Your task to perform on an android device: Open CNN.com Image 0: 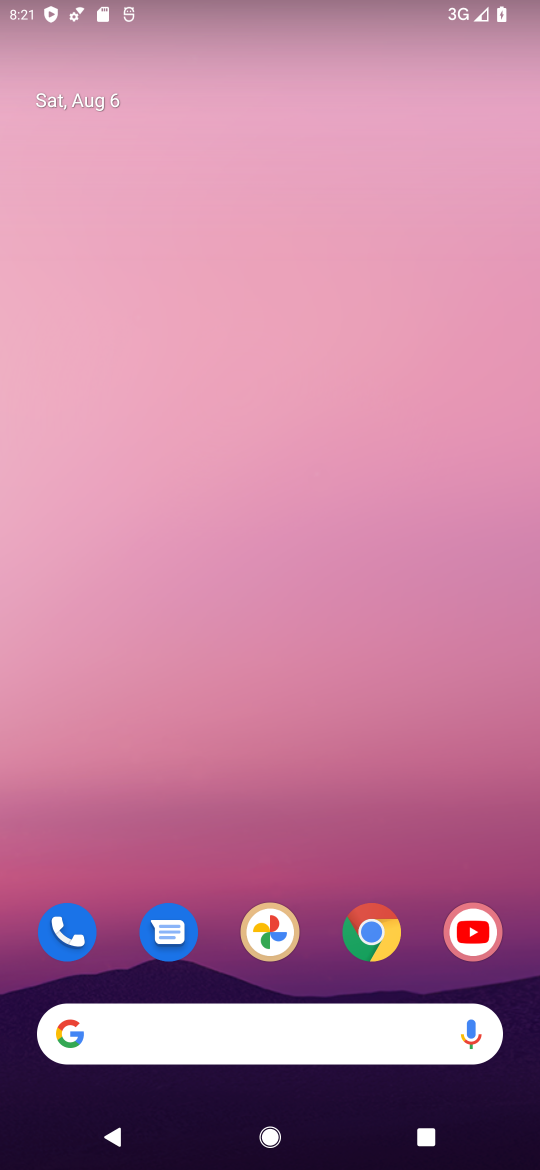
Step 0: click (371, 933)
Your task to perform on an android device: Open CNN.com Image 1: 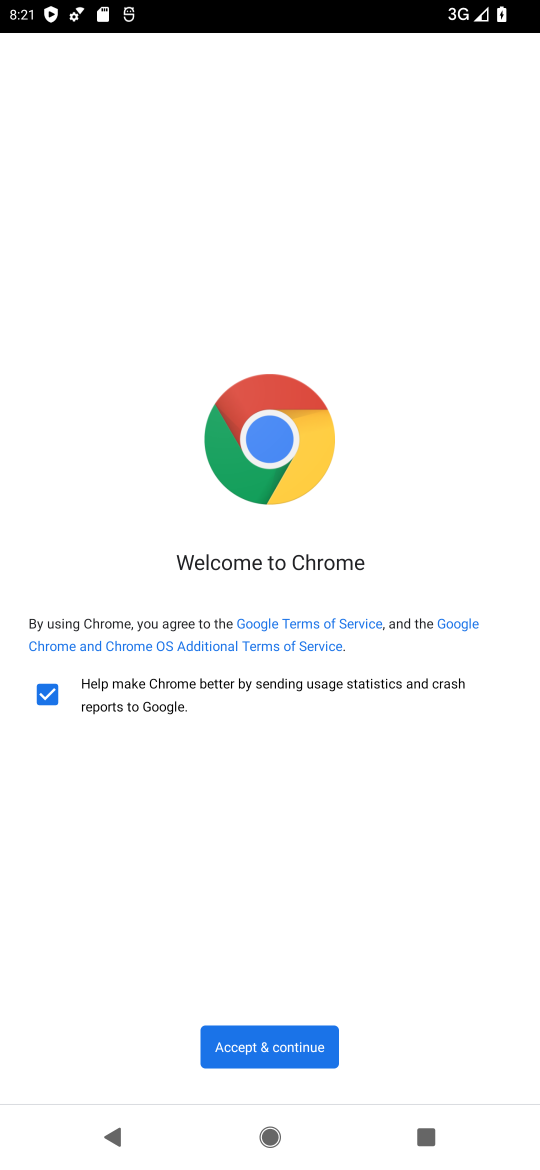
Step 1: click (275, 1044)
Your task to perform on an android device: Open CNN.com Image 2: 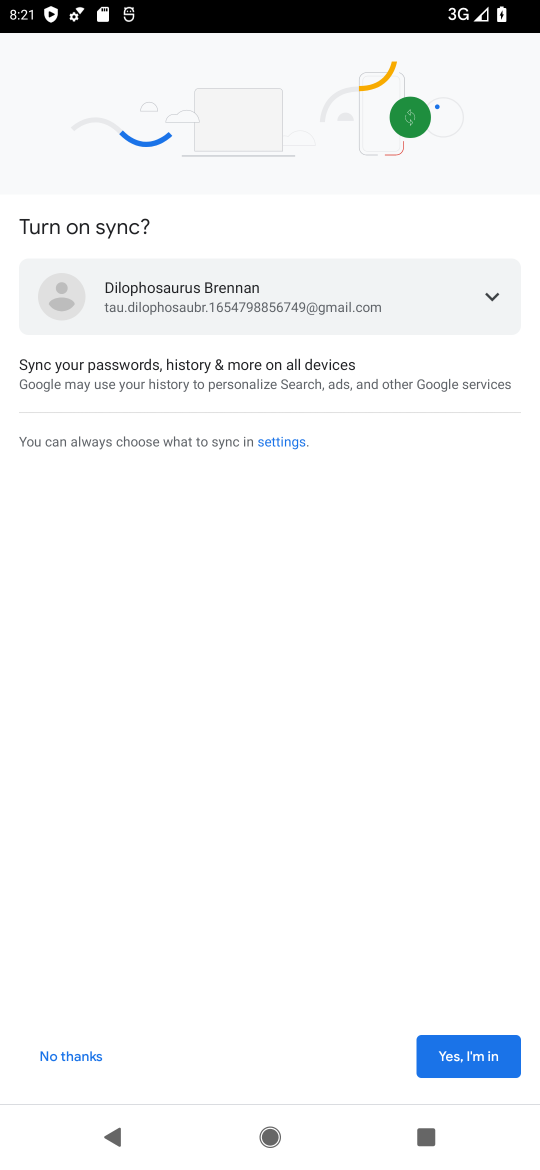
Step 2: click (93, 1056)
Your task to perform on an android device: Open CNN.com Image 3: 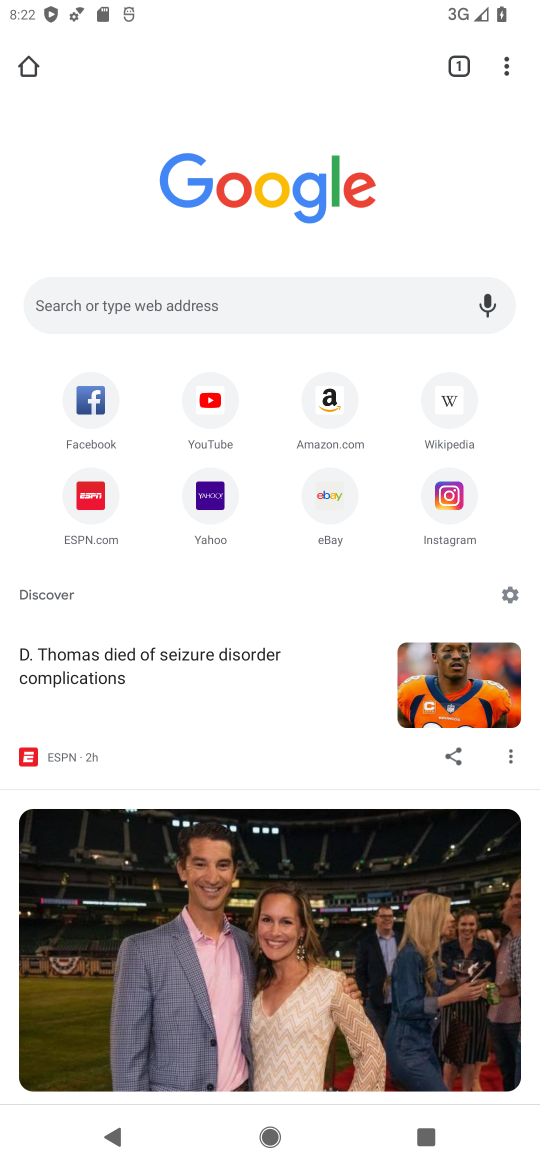
Step 3: click (269, 306)
Your task to perform on an android device: Open CNN.com Image 4: 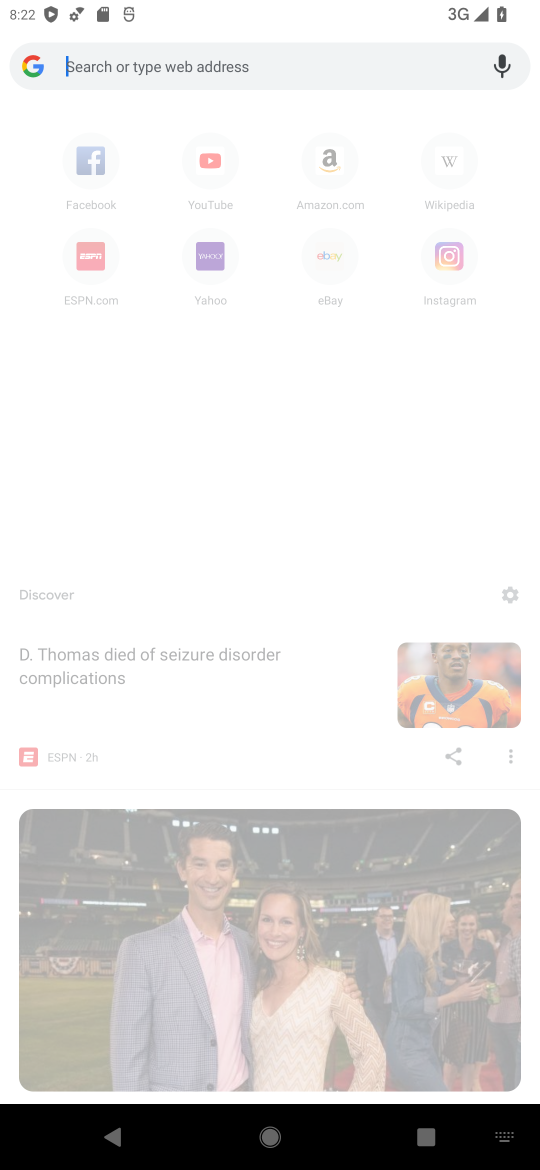
Step 4: type "CNN.com"
Your task to perform on an android device: Open CNN.com Image 5: 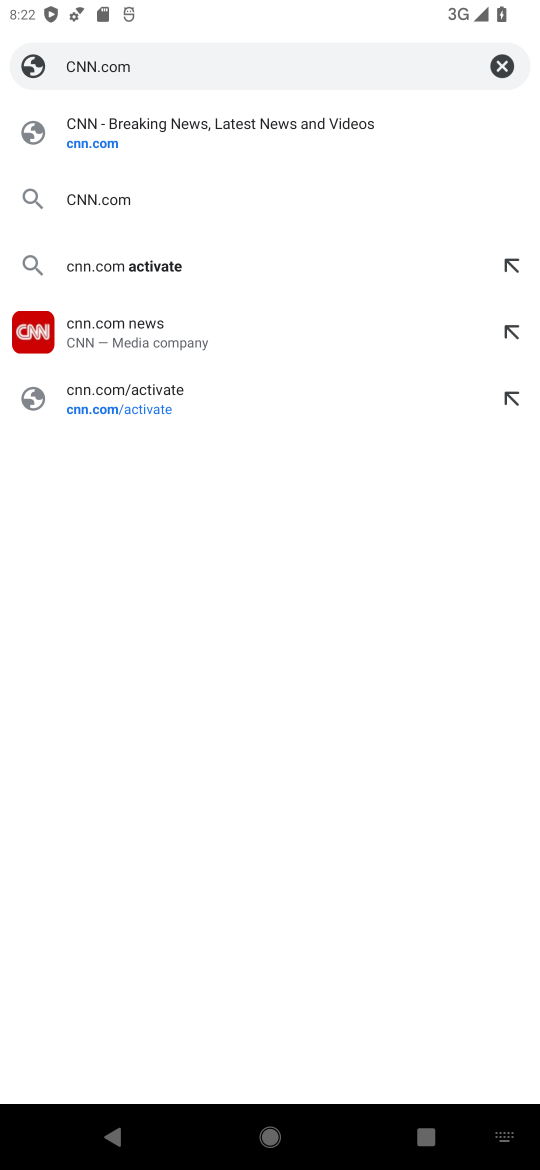
Step 5: click (104, 201)
Your task to perform on an android device: Open CNN.com Image 6: 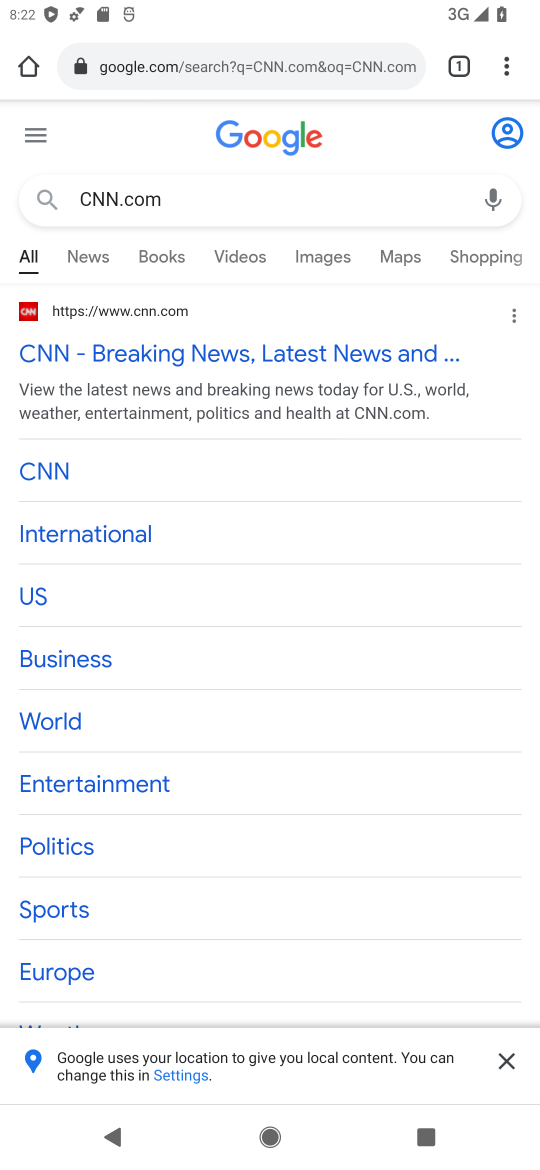
Step 6: click (154, 348)
Your task to perform on an android device: Open CNN.com Image 7: 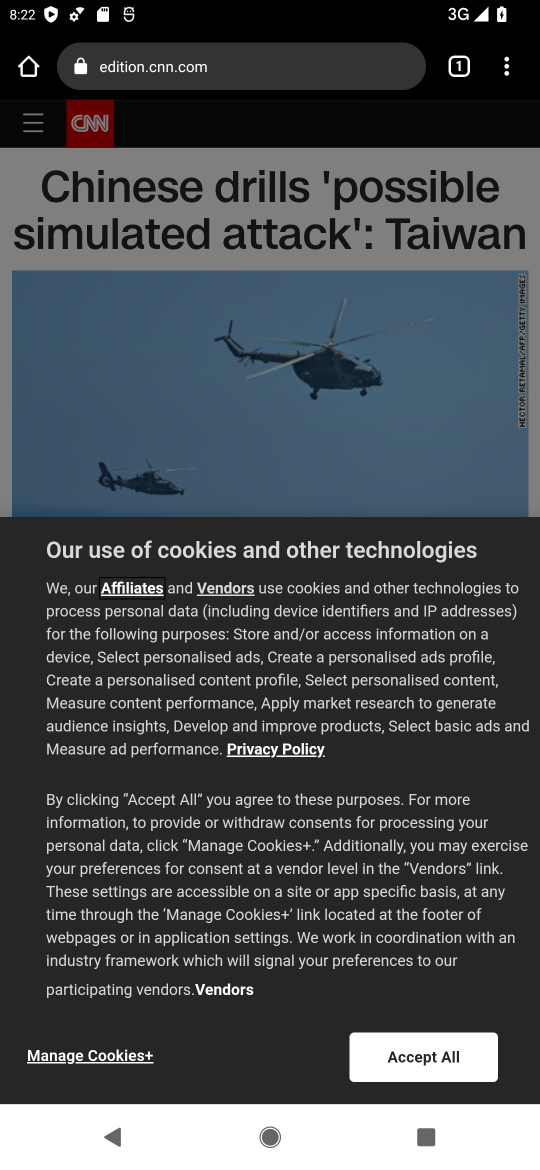
Step 7: click (433, 1062)
Your task to perform on an android device: Open CNN.com Image 8: 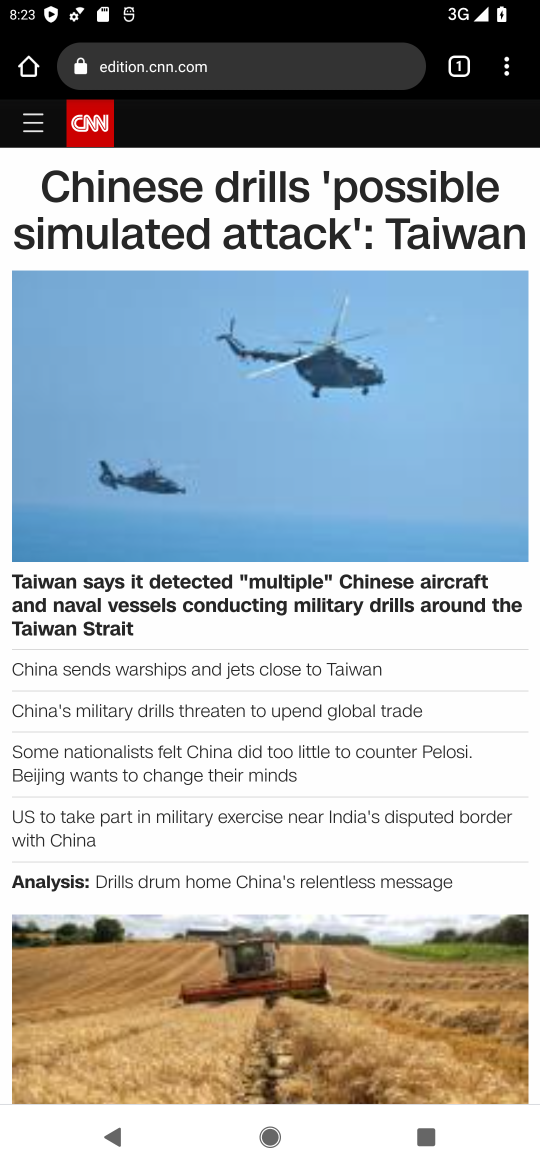
Step 8: task complete